Your task to perform on an android device: Open the calendar app, open the side menu, and click the "Day" option Image 0: 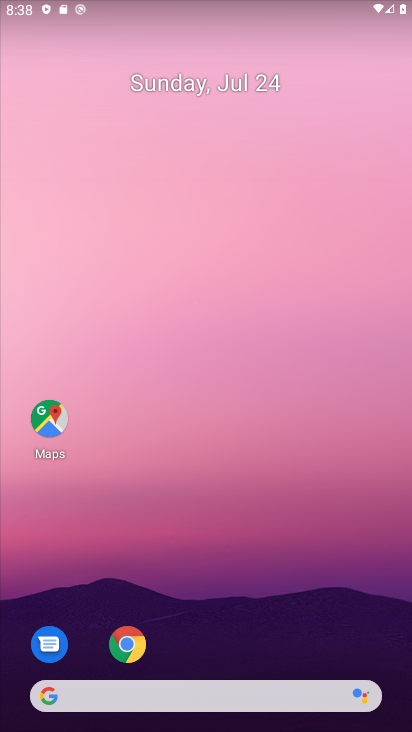
Step 0: drag from (225, 569) to (202, 193)
Your task to perform on an android device: Open the calendar app, open the side menu, and click the "Day" option Image 1: 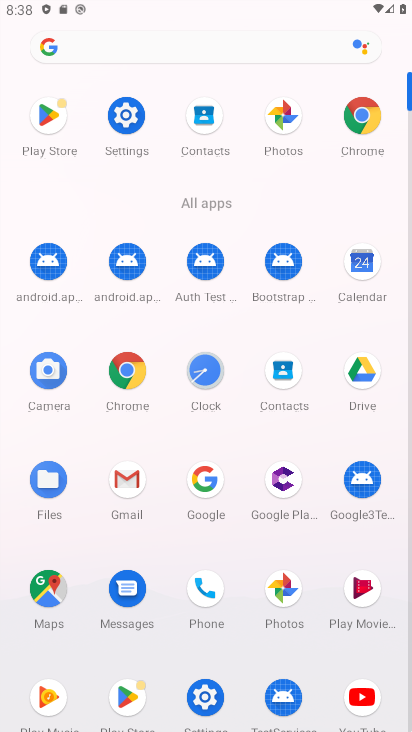
Step 1: click (362, 263)
Your task to perform on an android device: Open the calendar app, open the side menu, and click the "Day" option Image 2: 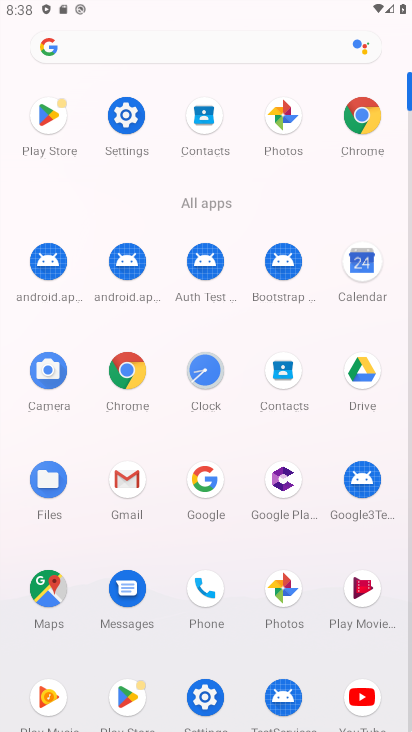
Step 2: click (362, 263)
Your task to perform on an android device: Open the calendar app, open the side menu, and click the "Day" option Image 3: 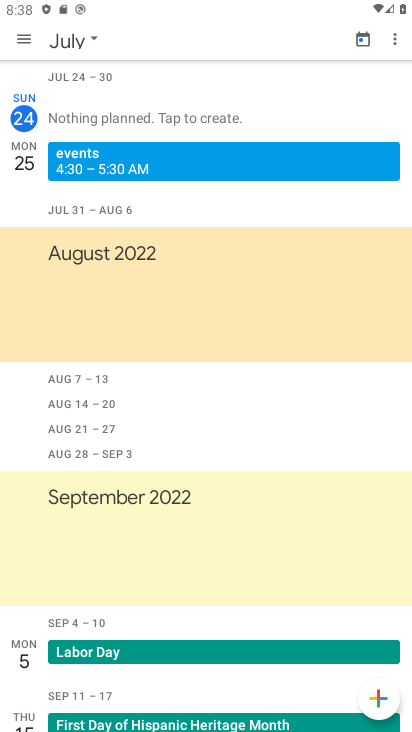
Step 3: press back button
Your task to perform on an android device: Open the calendar app, open the side menu, and click the "Day" option Image 4: 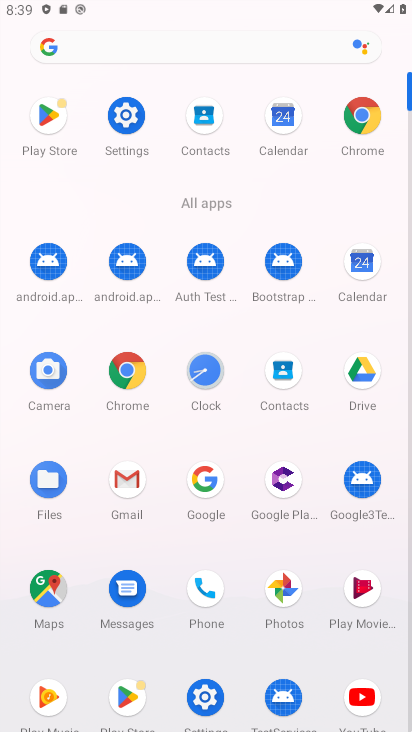
Step 4: click (358, 266)
Your task to perform on an android device: Open the calendar app, open the side menu, and click the "Day" option Image 5: 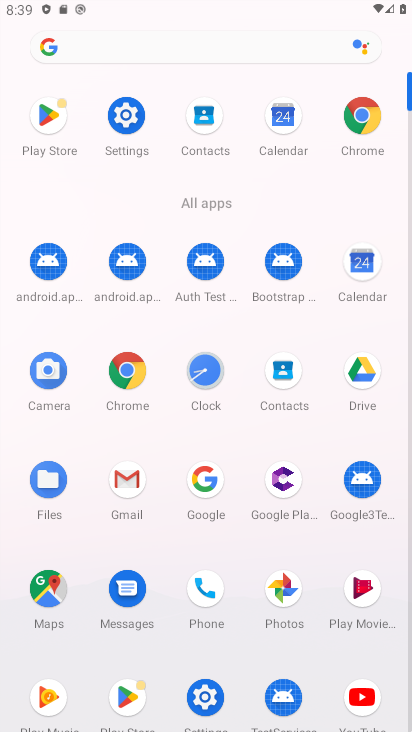
Step 5: click (358, 265)
Your task to perform on an android device: Open the calendar app, open the side menu, and click the "Day" option Image 6: 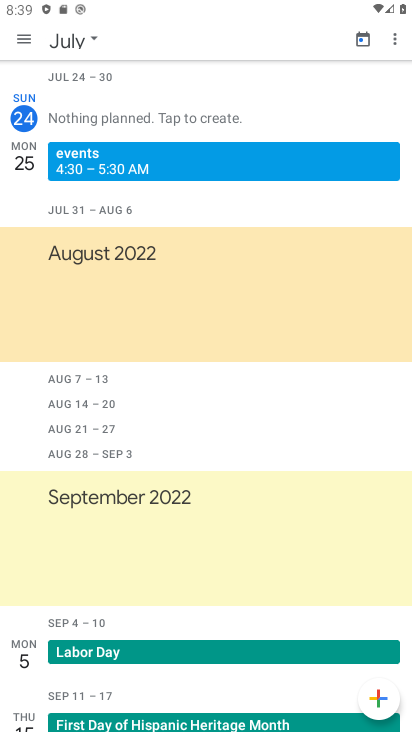
Step 6: click (23, 33)
Your task to perform on an android device: Open the calendar app, open the side menu, and click the "Day" option Image 7: 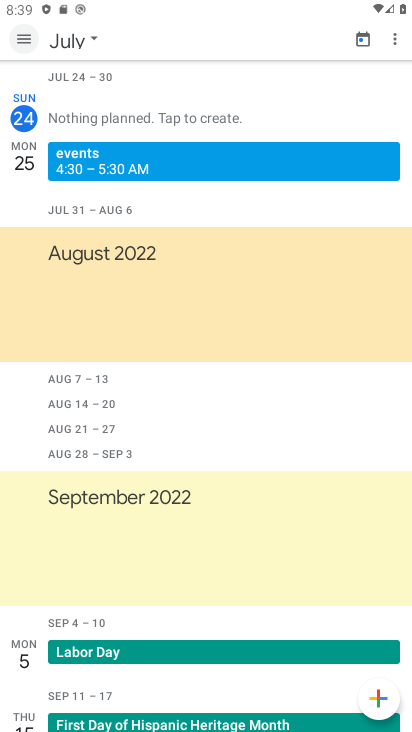
Step 7: click (23, 33)
Your task to perform on an android device: Open the calendar app, open the side menu, and click the "Day" option Image 8: 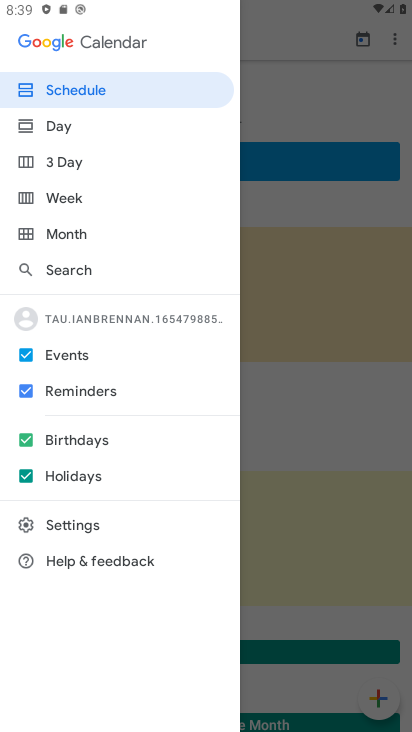
Step 8: click (67, 125)
Your task to perform on an android device: Open the calendar app, open the side menu, and click the "Day" option Image 9: 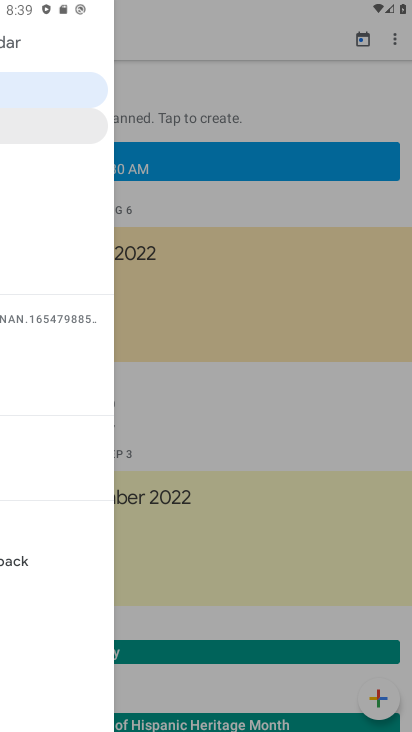
Step 9: click (66, 126)
Your task to perform on an android device: Open the calendar app, open the side menu, and click the "Day" option Image 10: 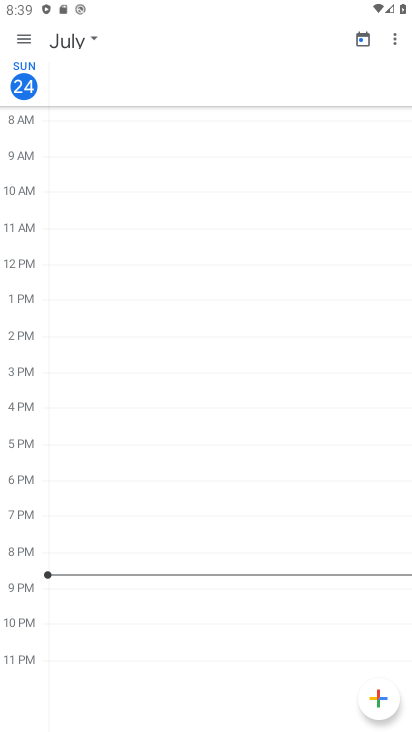
Step 10: click (102, 46)
Your task to perform on an android device: Open the calendar app, open the side menu, and click the "Day" option Image 11: 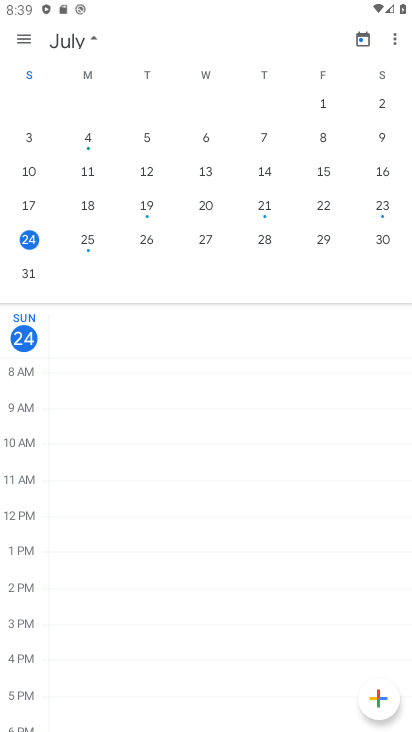
Step 11: task complete